Your task to perform on an android device: Open calendar and show me the first week of next month Image 0: 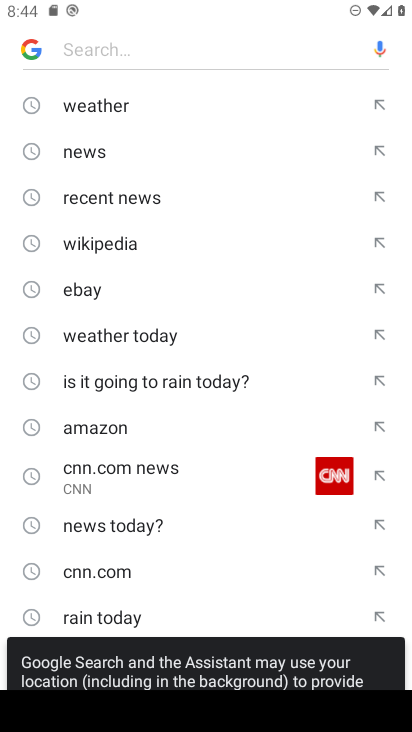
Step 0: press home button
Your task to perform on an android device: Open calendar and show me the first week of next month Image 1: 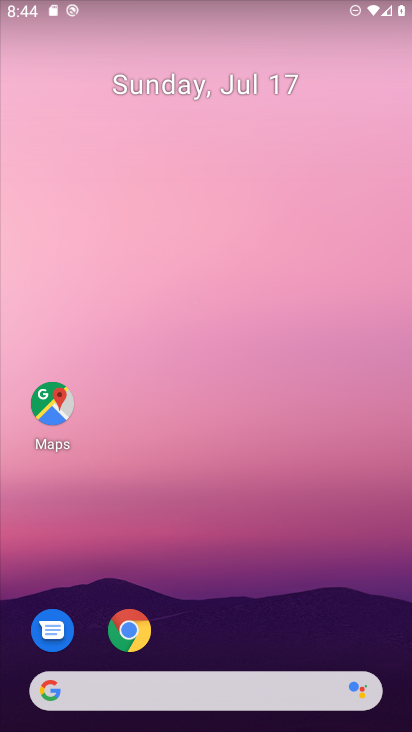
Step 1: drag from (241, 649) to (257, 249)
Your task to perform on an android device: Open calendar and show me the first week of next month Image 2: 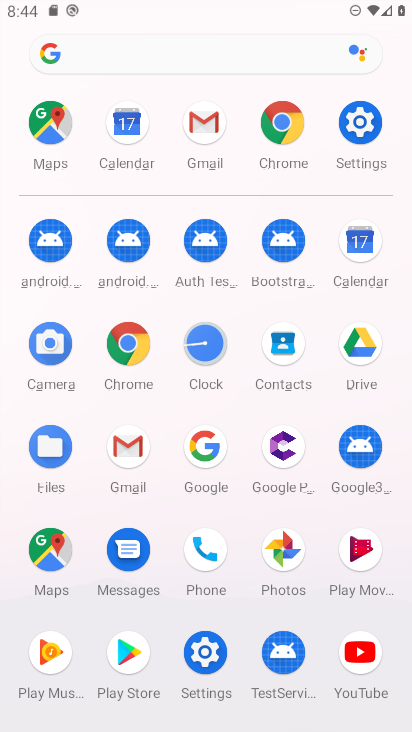
Step 2: click (358, 241)
Your task to perform on an android device: Open calendar and show me the first week of next month Image 3: 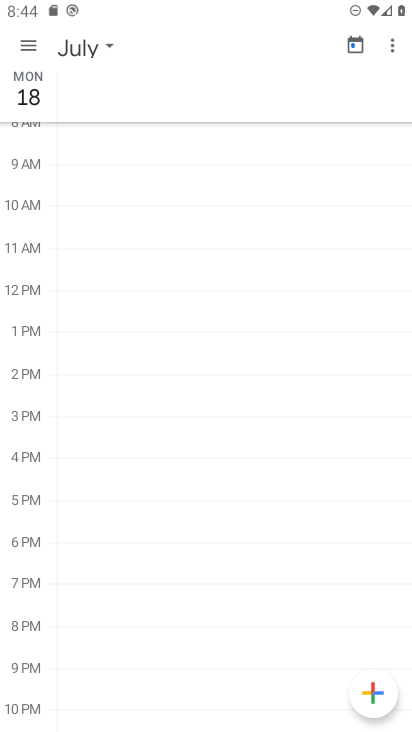
Step 3: click (23, 45)
Your task to perform on an android device: Open calendar and show me the first week of next month Image 4: 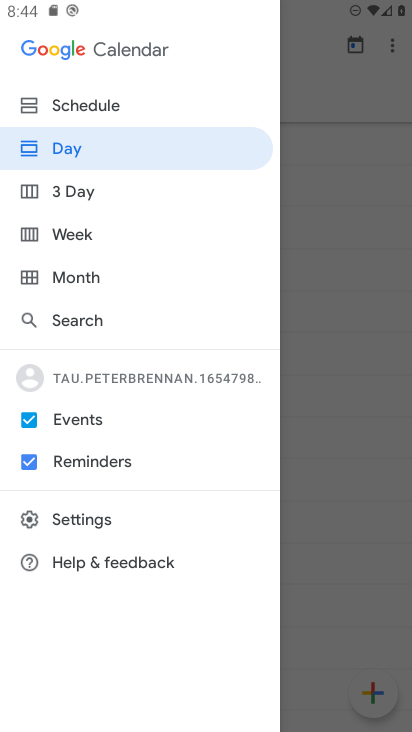
Step 4: click (77, 279)
Your task to perform on an android device: Open calendar and show me the first week of next month Image 5: 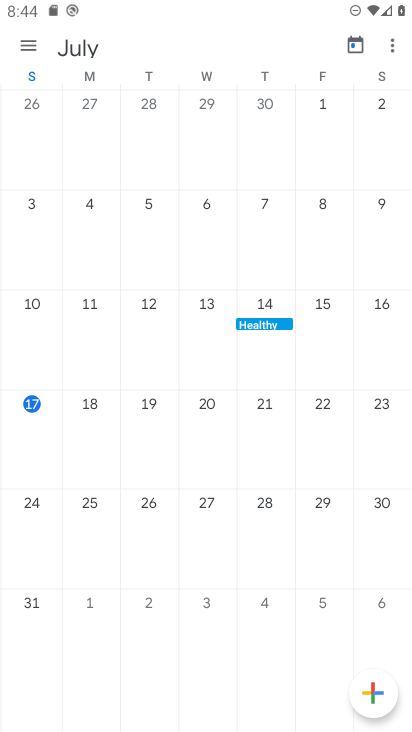
Step 5: task complete